Your task to perform on an android device: What is the news today? Image 0: 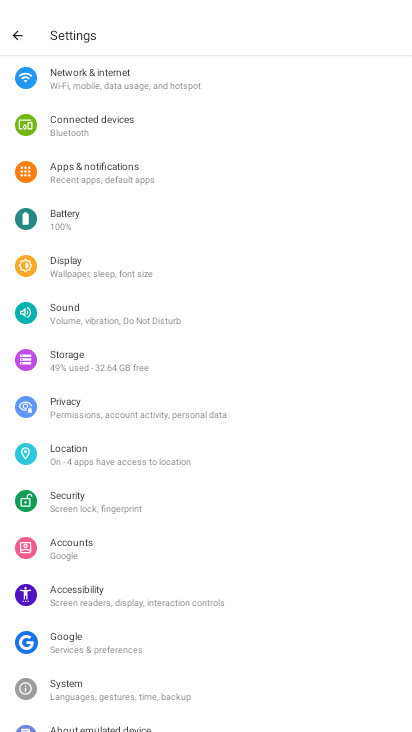
Step 0: press home button
Your task to perform on an android device: What is the news today? Image 1: 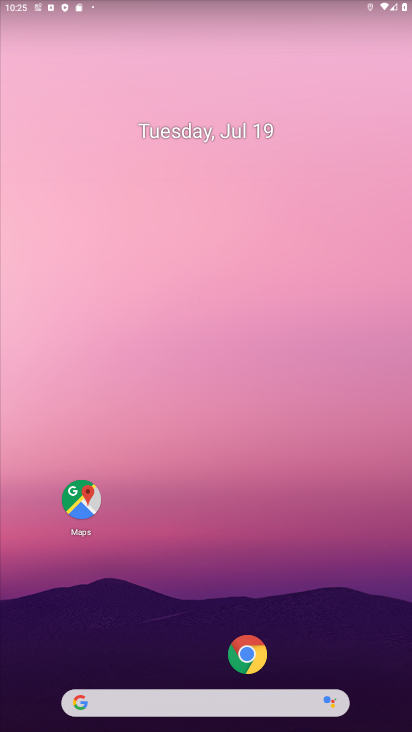
Step 1: click (120, 693)
Your task to perform on an android device: What is the news today? Image 2: 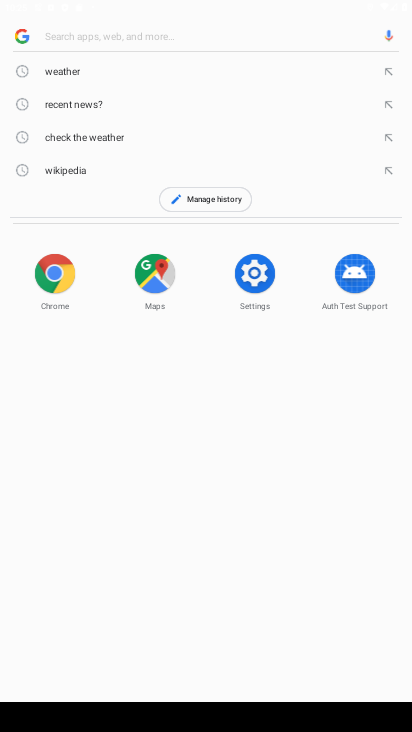
Step 2: click (20, 43)
Your task to perform on an android device: What is the news today? Image 3: 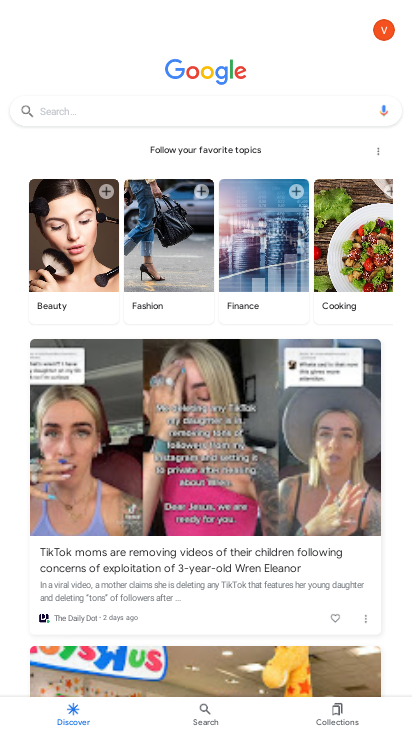
Step 3: task complete